Your task to perform on an android device: Search for Italian restaurants on Maps Image 0: 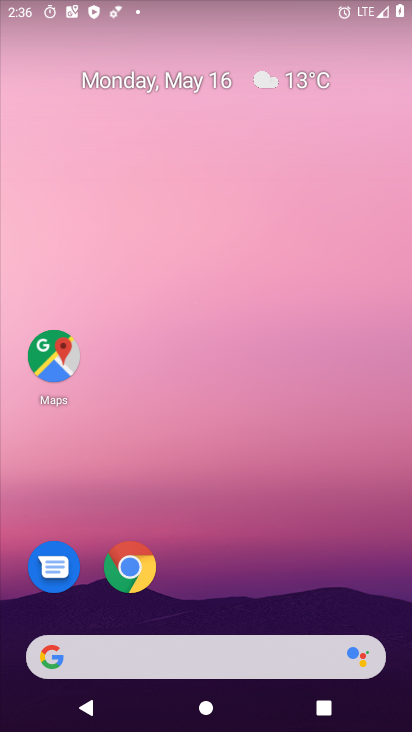
Step 0: click (40, 351)
Your task to perform on an android device: Search for Italian restaurants on Maps Image 1: 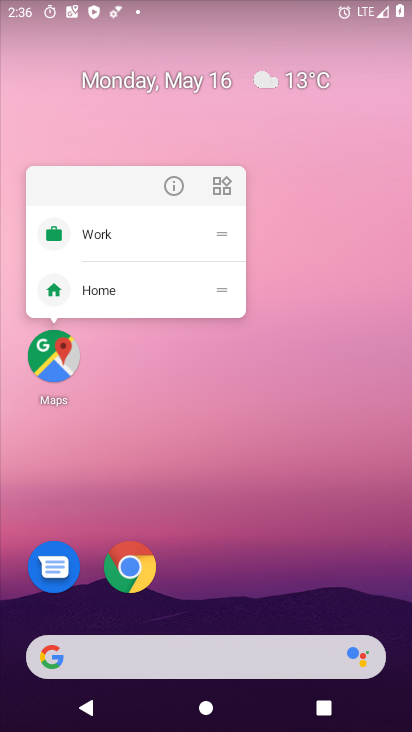
Step 1: click (194, 393)
Your task to perform on an android device: Search for Italian restaurants on Maps Image 2: 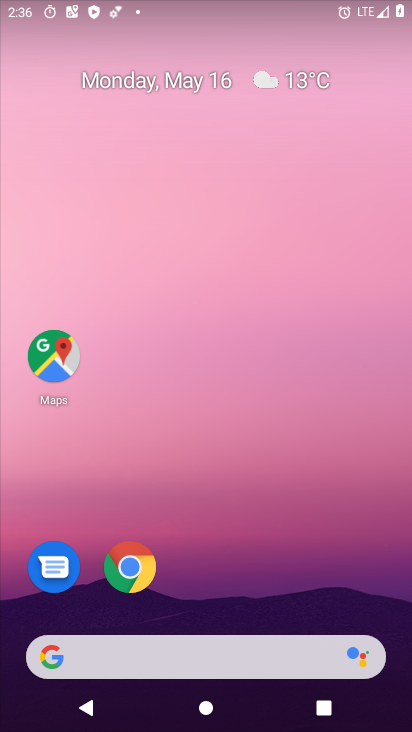
Step 2: drag from (251, 518) to (302, 69)
Your task to perform on an android device: Search for Italian restaurants on Maps Image 3: 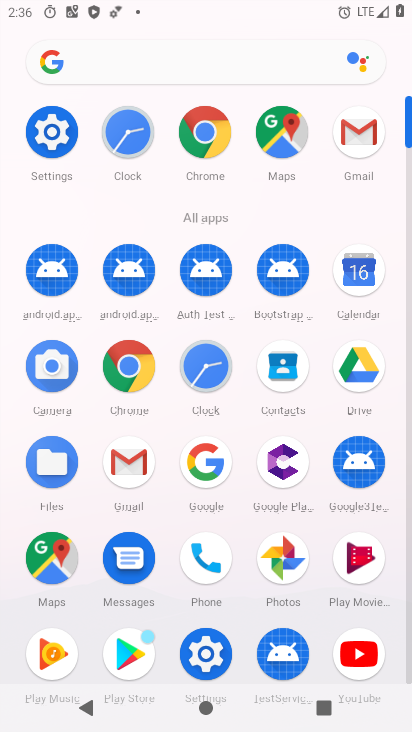
Step 3: click (50, 571)
Your task to perform on an android device: Search for Italian restaurants on Maps Image 4: 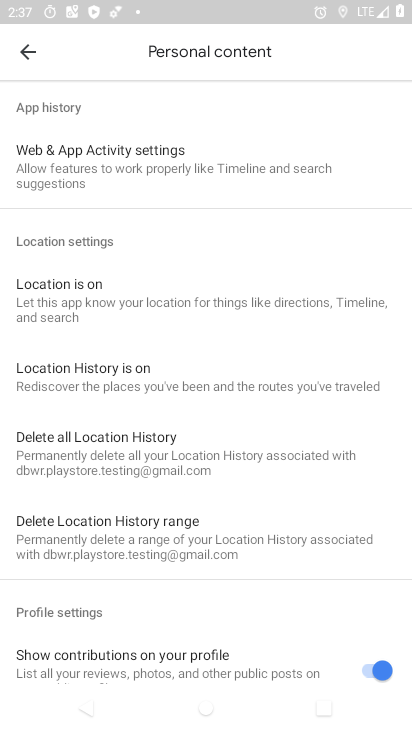
Step 4: drag from (203, 616) to (188, 314)
Your task to perform on an android device: Search for Italian restaurants on Maps Image 5: 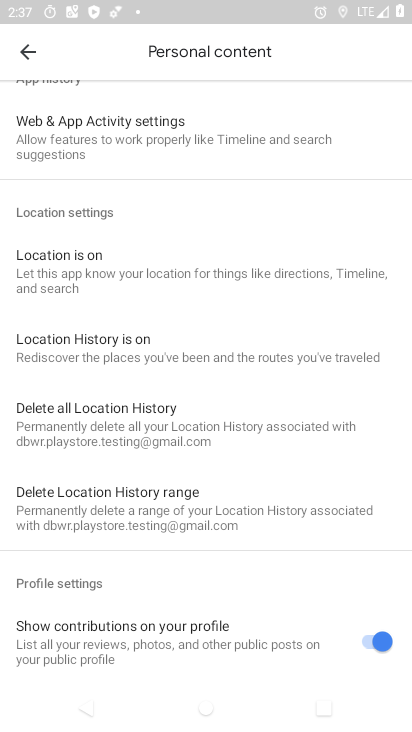
Step 5: drag from (230, 538) to (236, 268)
Your task to perform on an android device: Search for Italian restaurants on Maps Image 6: 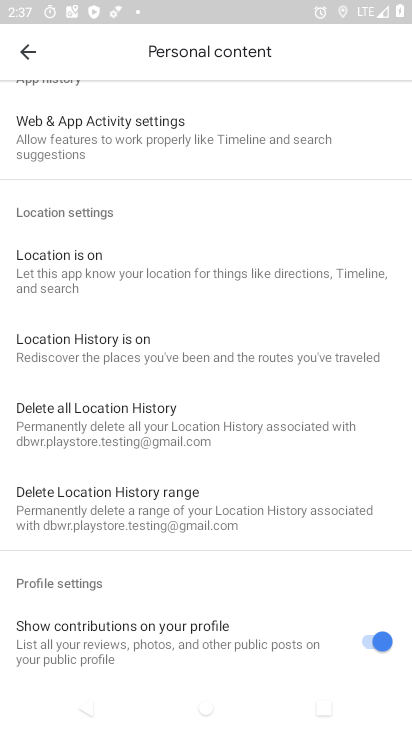
Step 6: click (16, 51)
Your task to perform on an android device: Search for Italian restaurants on Maps Image 7: 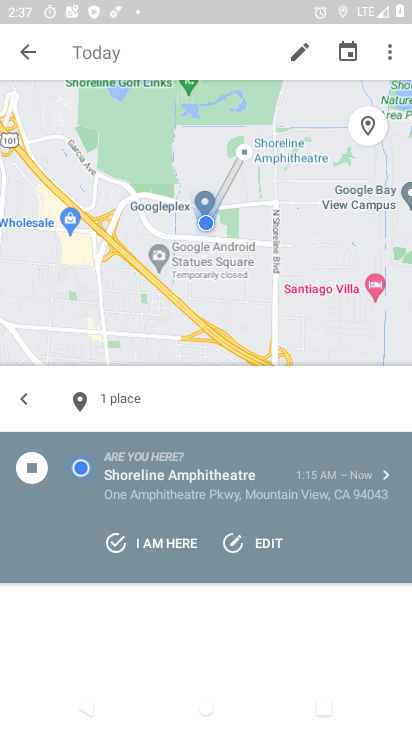
Step 7: click (125, 68)
Your task to perform on an android device: Search for Italian restaurants on Maps Image 8: 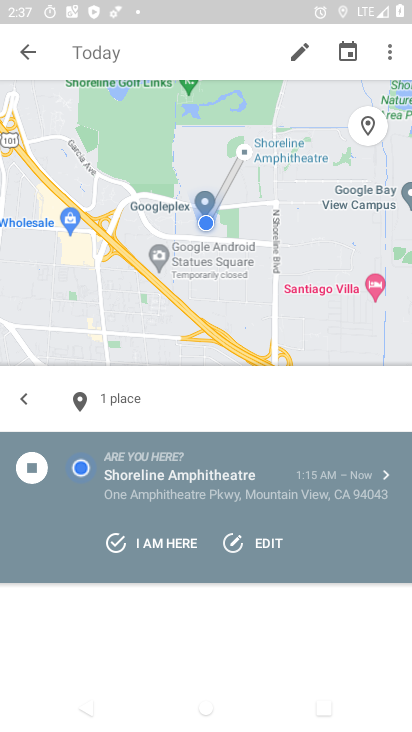
Step 8: click (25, 45)
Your task to perform on an android device: Search for Italian restaurants on Maps Image 9: 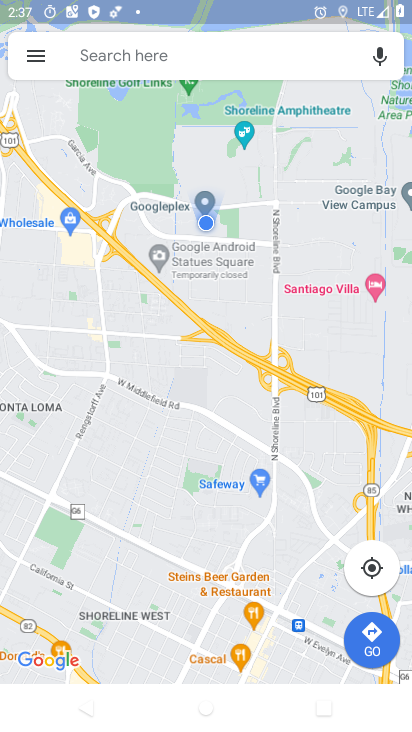
Step 9: click (147, 47)
Your task to perform on an android device: Search for Italian restaurants on Maps Image 10: 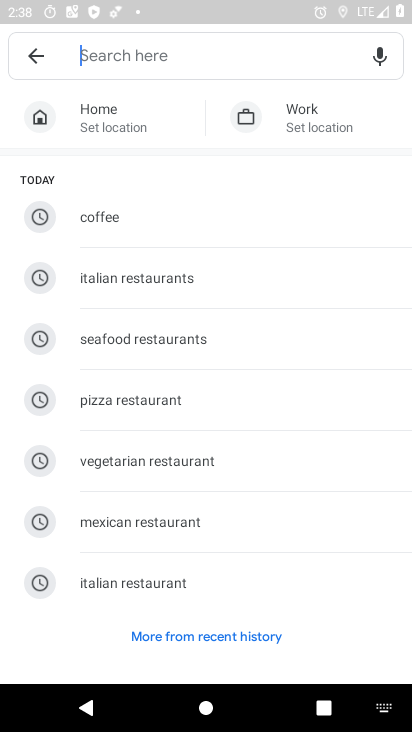
Step 10: type "r Italian restaurants "
Your task to perform on an android device: Search for Italian restaurants on Maps Image 11: 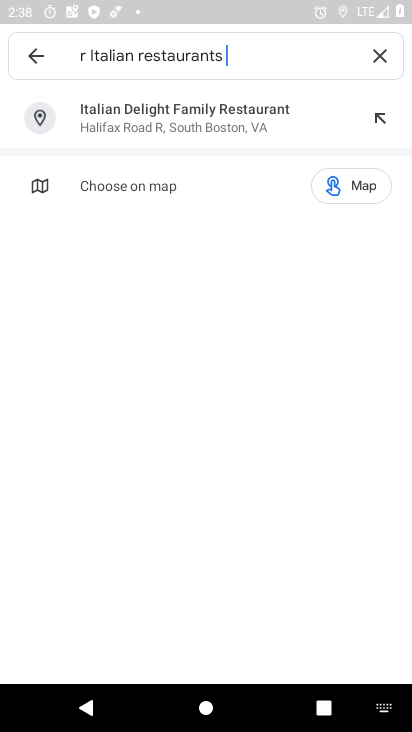
Step 11: click (185, 118)
Your task to perform on an android device: Search for Italian restaurants on Maps Image 12: 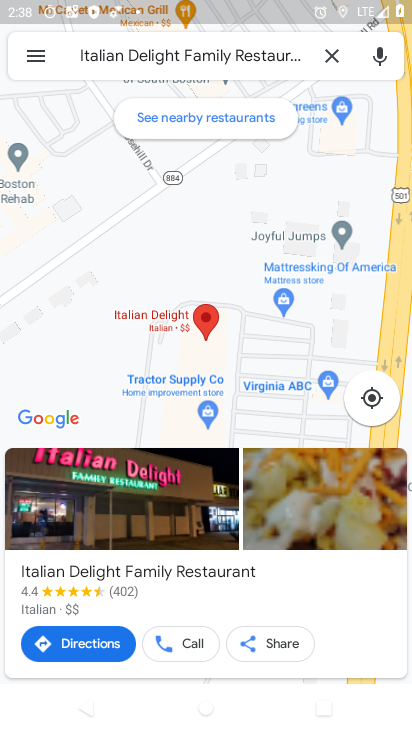
Step 12: task complete